Your task to perform on an android device: install app "Spotify" Image 0: 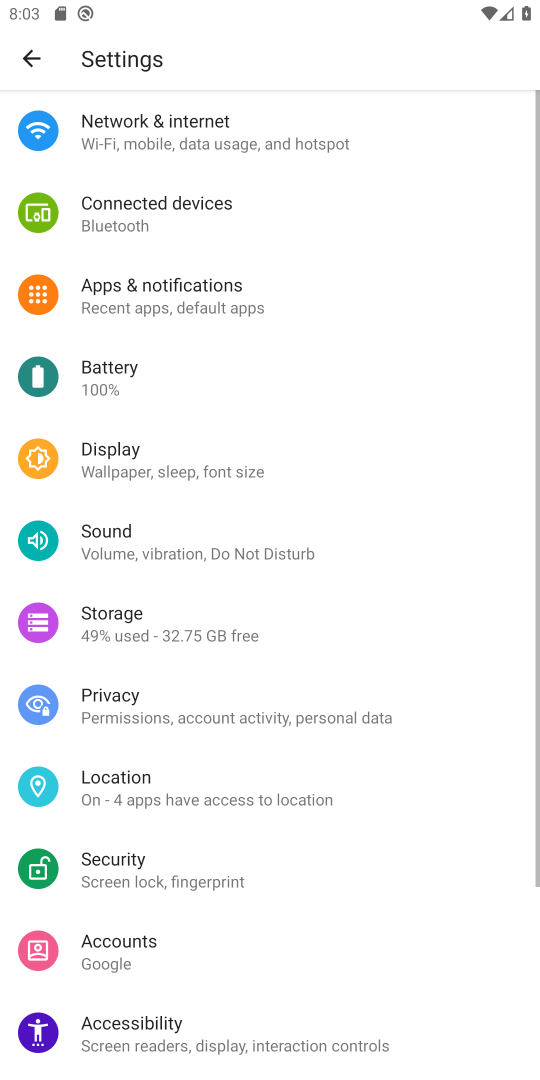
Step 0: press home button
Your task to perform on an android device: install app "Spotify" Image 1: 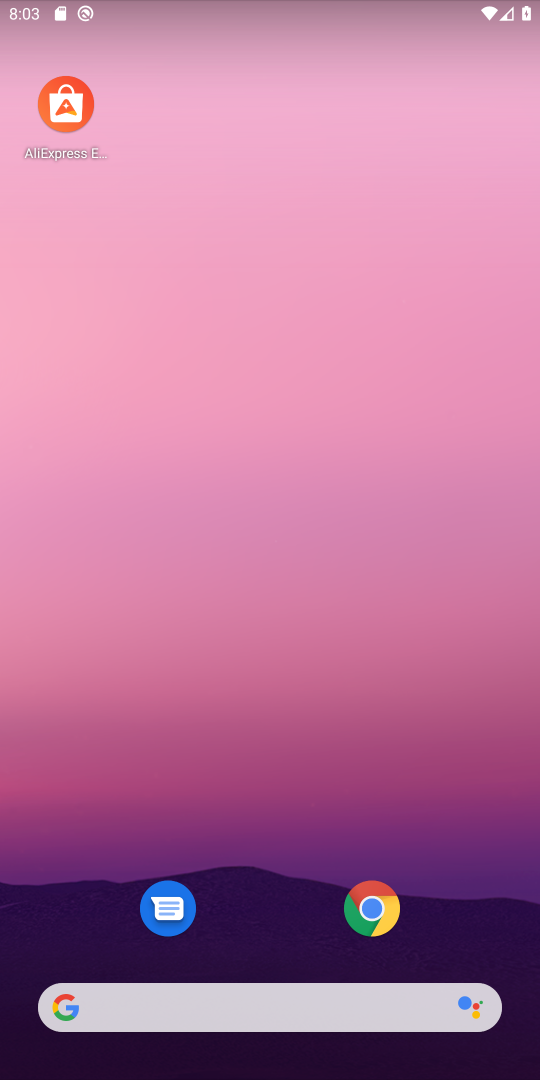
Step 1: drag from (475, 1035) to (289, 23)
Your task to perform on an android device: install app "Spotify" Image 2: 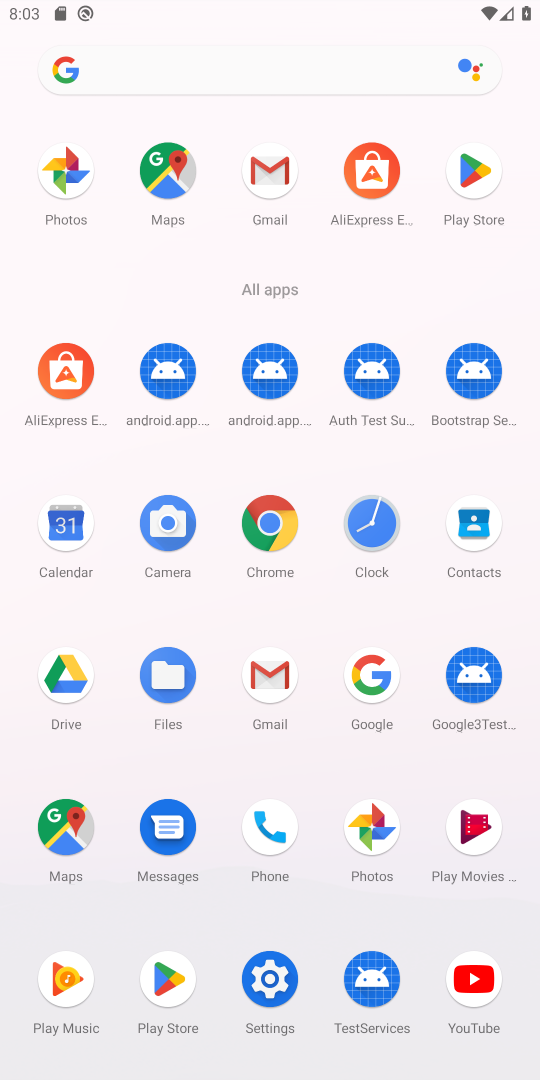
Step 2: click (192, 991)
Your task to perform on an android device: install app "Spotify" Image 3: 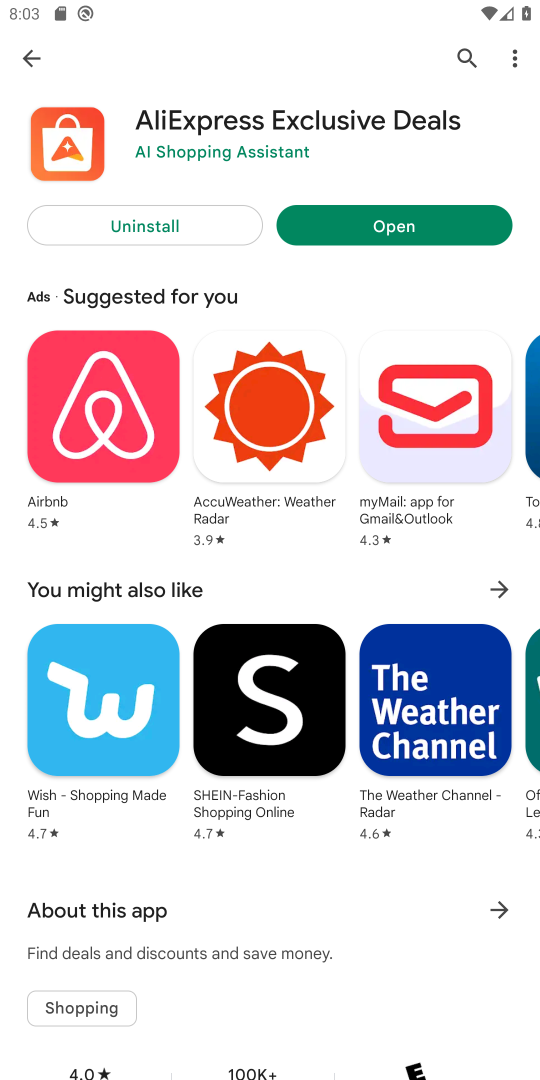
Step 3: click (46, 55)
Your task to perform on an android device: install app "Spotify" Image 4: 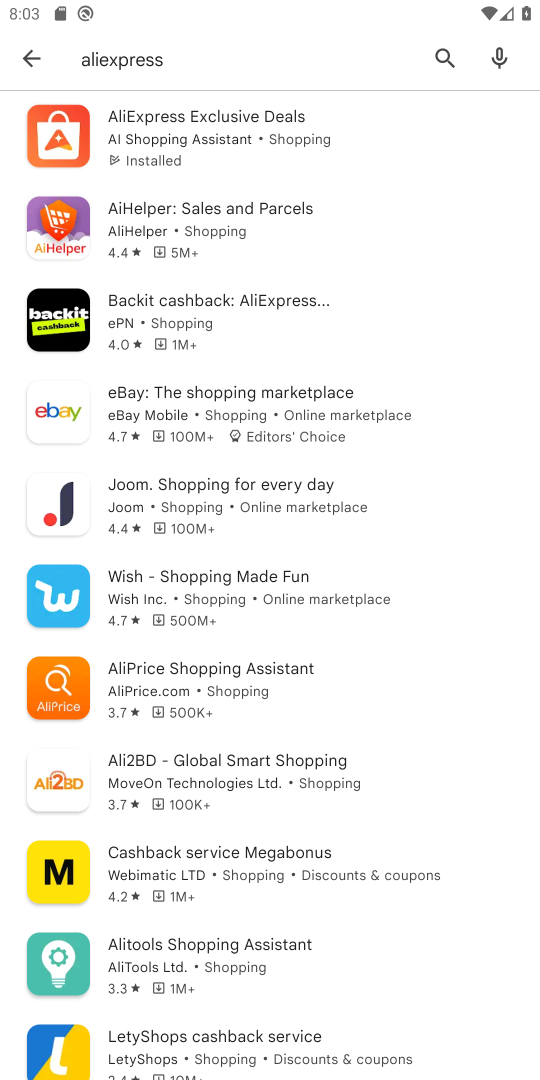
Step 4: click (447, 63)
Your task to perform on an android device: install app "Spotify" Image 5: 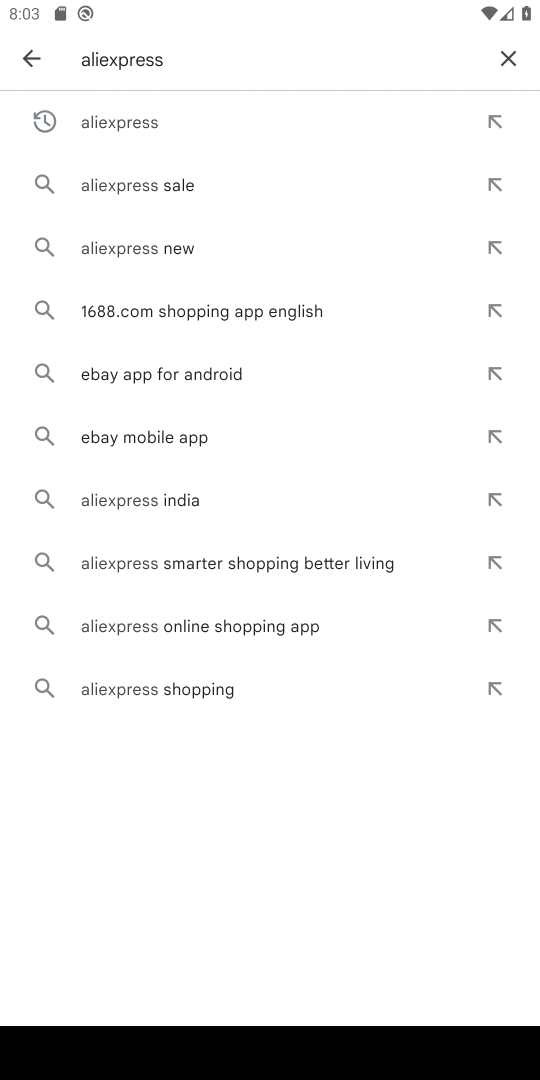
Step 5: click (502, 54)
Your task to perform on an android device: install app "Spotify" Image 6: 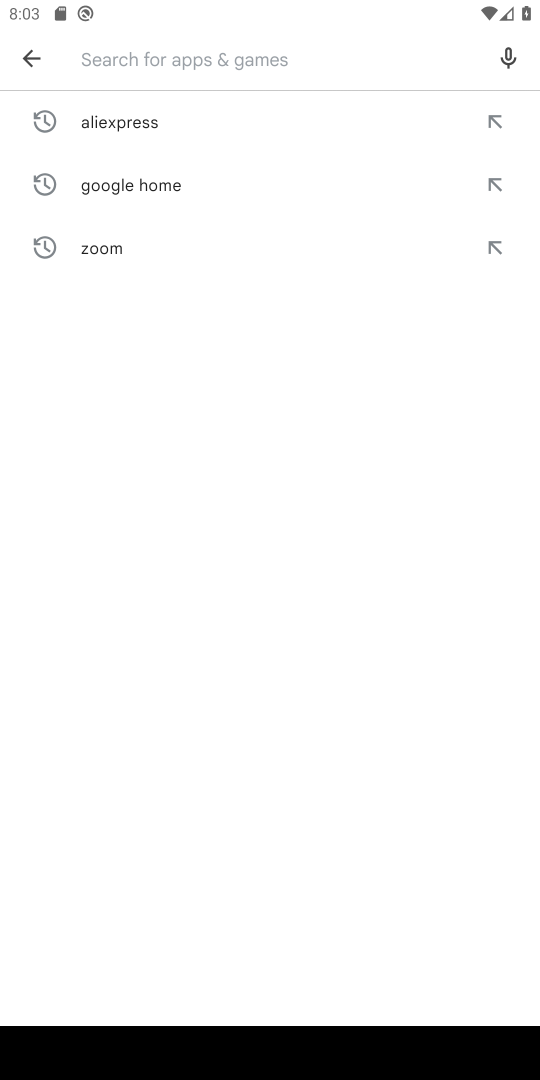
Step 6: type "spotify"
Your task to perform on an android device: install app "Spotify" Image 7: 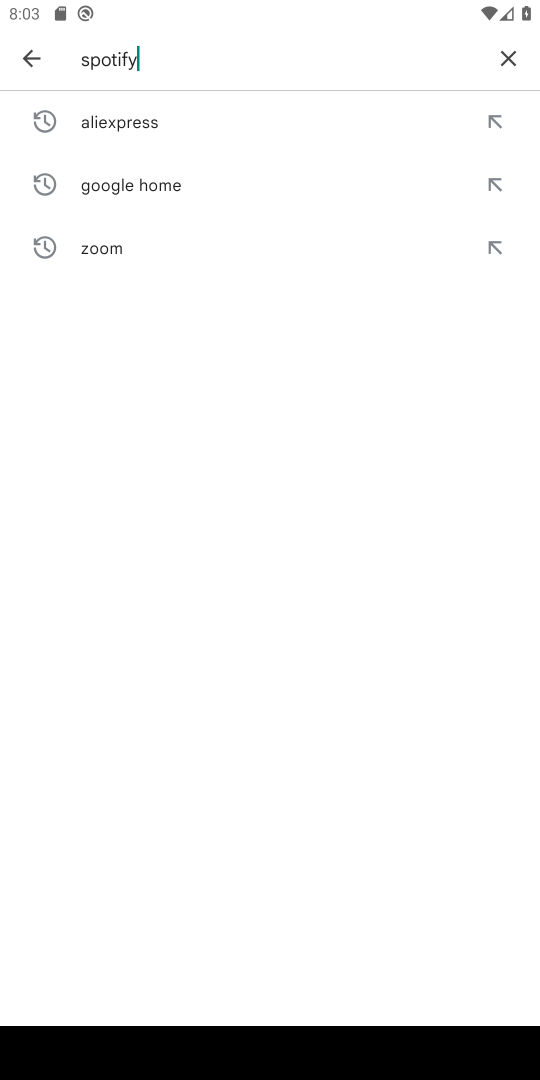
Step 7: type ""
Your task to perform on an android device: install app "Spotify" Image 8: 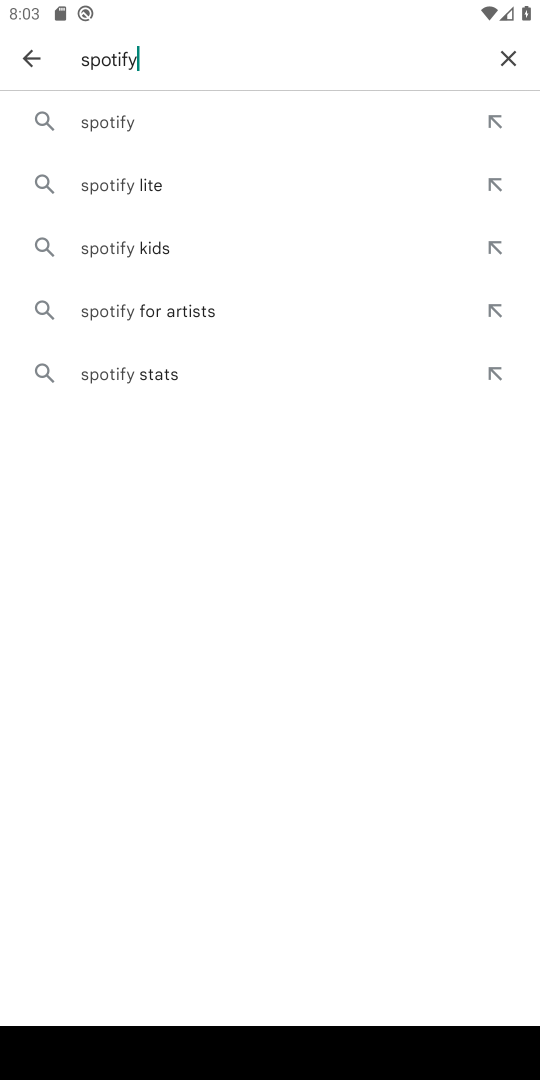
Step 8: click (136, 122)
Your task to perform on an android device: install app "Spotify" Image 9: 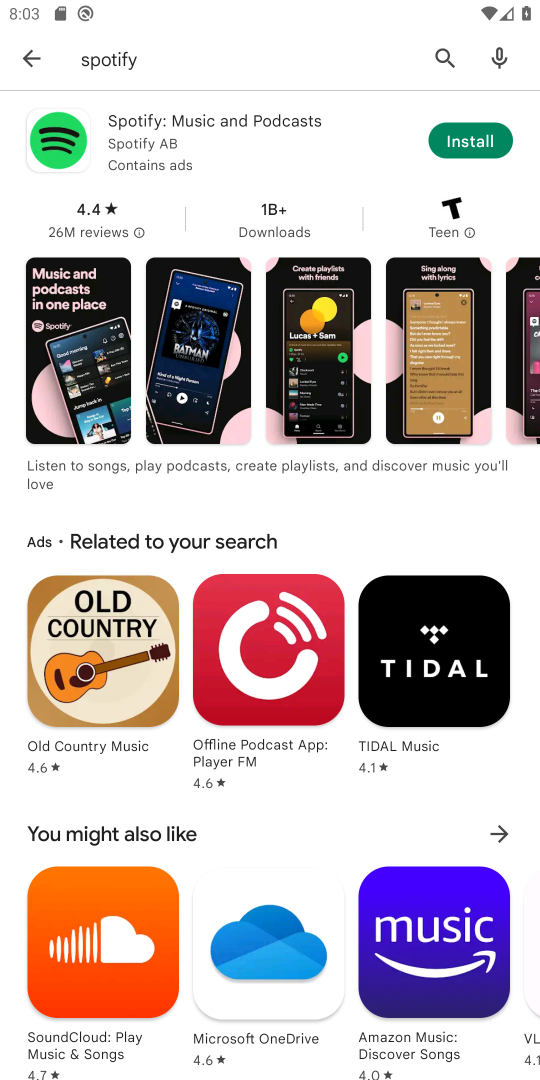
Step 9: click (441, 147)
Your task to perform on an android device: install app "Spotify" Image 10: 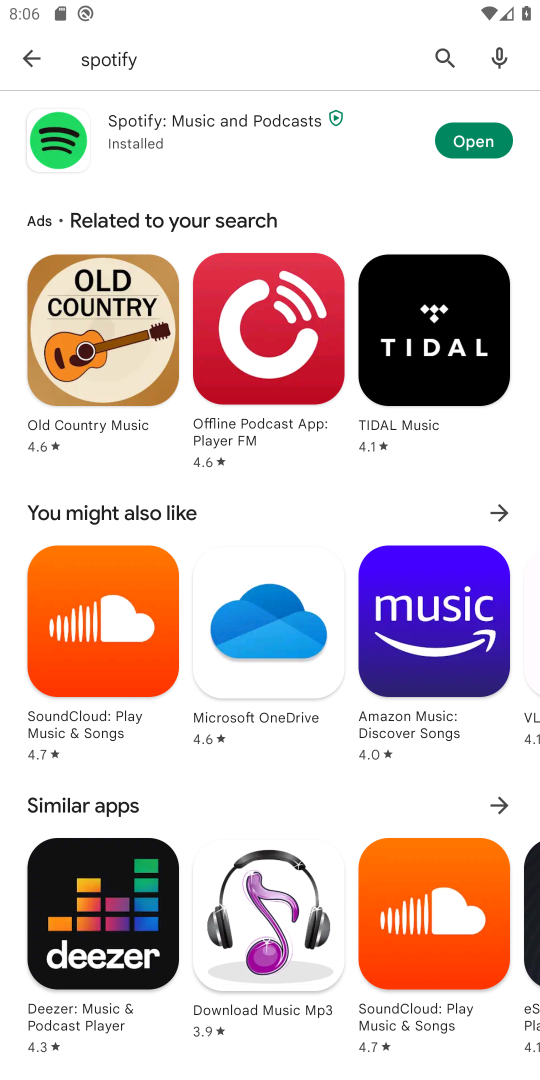
Step 10: click (493, 141)
Your task to perform on an android device: install app "Spotify" Image 11: 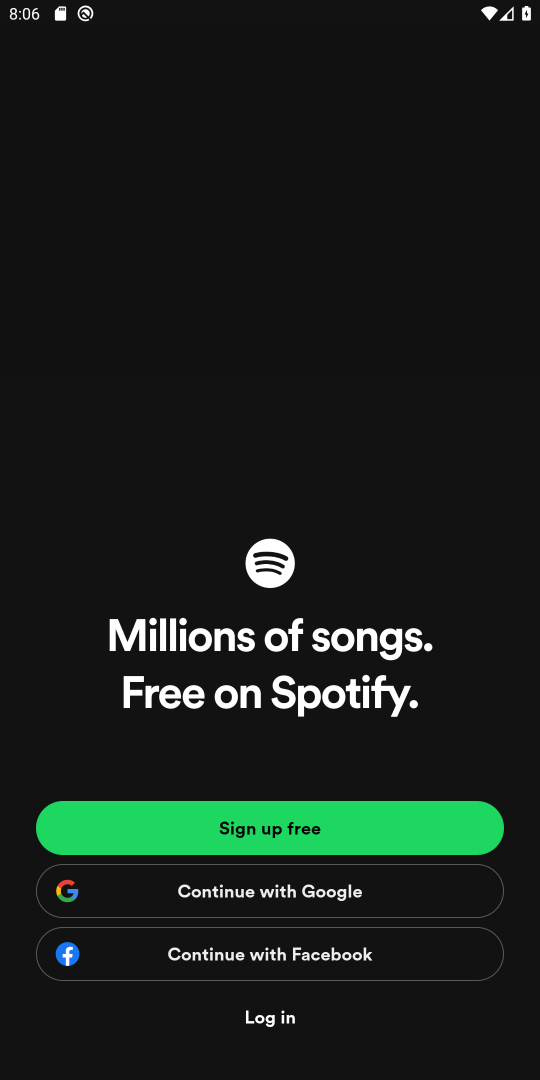
Step 11: task complete